Your task to perform on an android device: Open Maps and search for coffee Image 0: 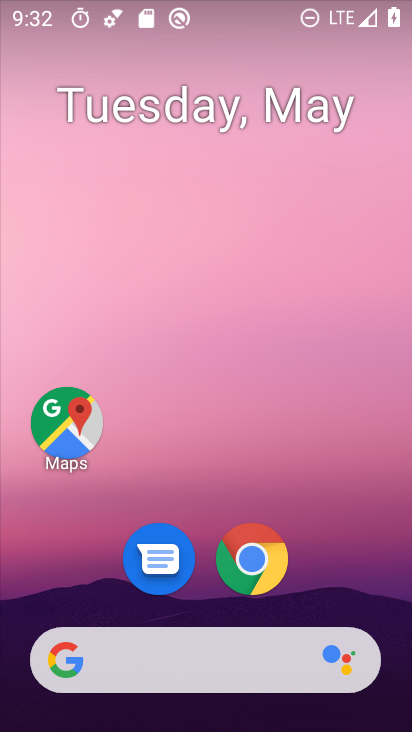
Step 0: drag from (389, 631) to (231, 56)
Your task to perform on an android device: Open Maps and search for coffee Image 1: 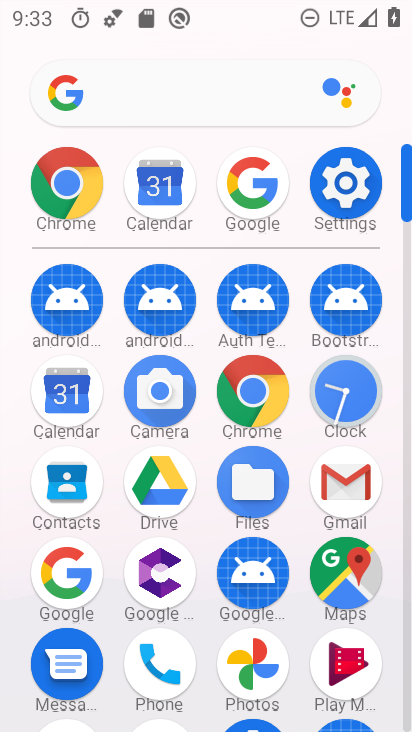
Step 1: click (347, 584)
Your task to perform on an android device: Open Maps and search for coffee Image 2: 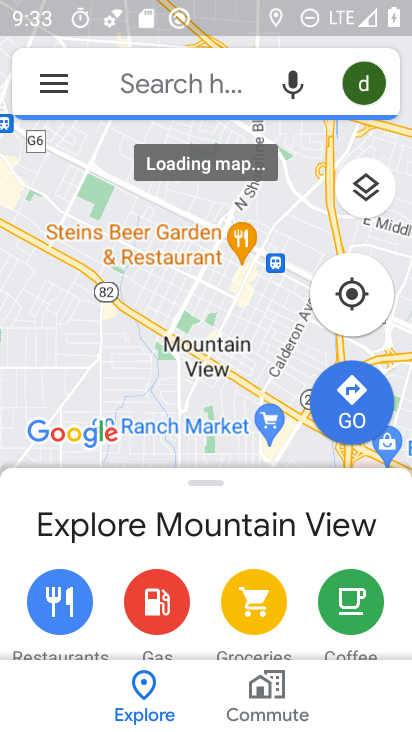
Step 2: click (166, 89)
Your task to perform on an android device: Open Maps and search for coffee Image 3: 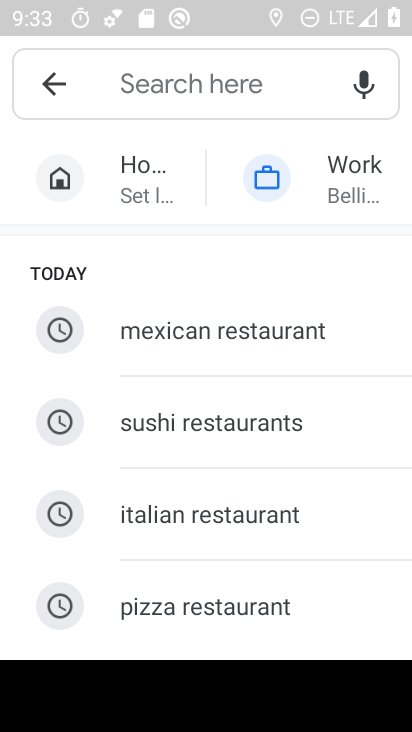
Step 3: drag from (187, 623) to (184, 216)
Your task to perform on an android device: Open Maps and search for coffee Image 4: 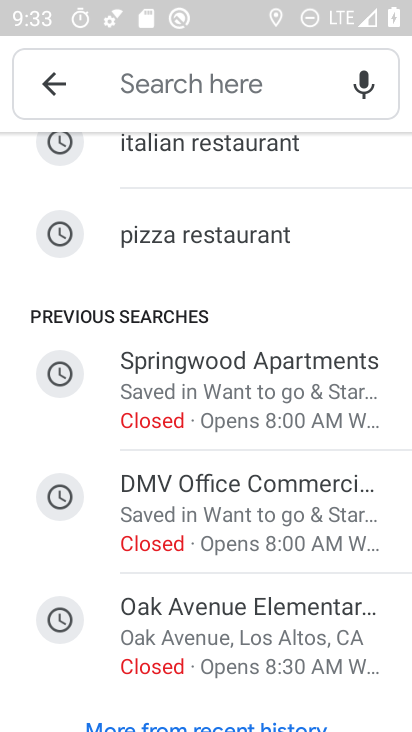
Step 4: drag from (198, 261) to (200, 717)
Your task to perform on an android device: Open Maps and search for coffee Image 5: 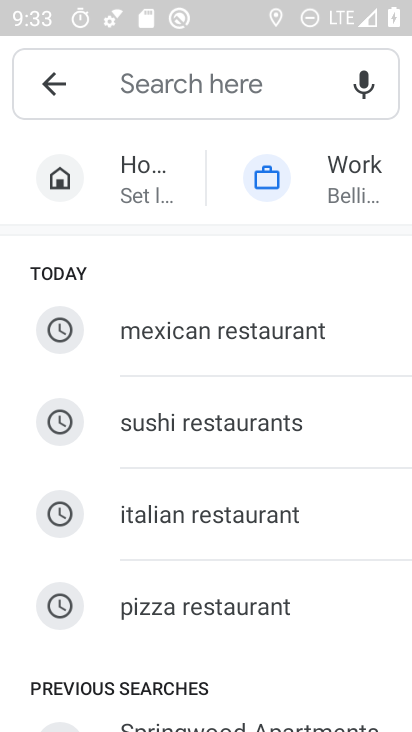
Step 5: click (153, 94)
Your task to perform on an android device: Open Maps and search for coffee Image 6: 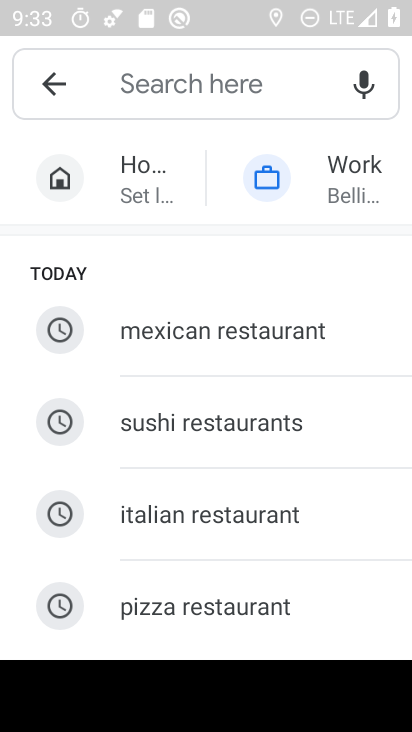
Step 6: type "coffee"
Your task to perform on an android device: Open Maps and search for coffee Image 7: 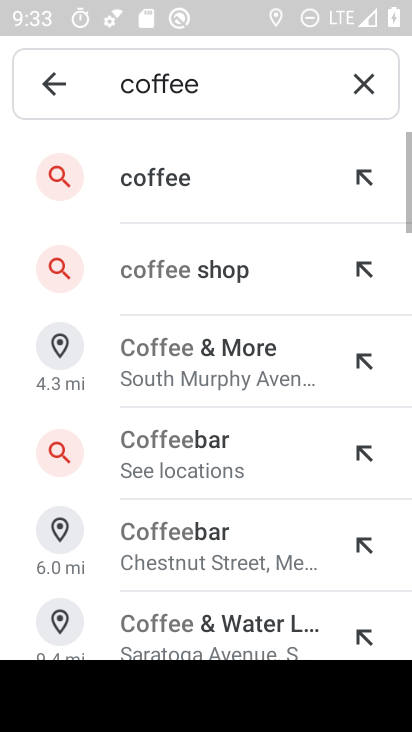
Step 7: click (200, 191)
Your task to perform on an android device: Open Maps and search for coffee Image 8: 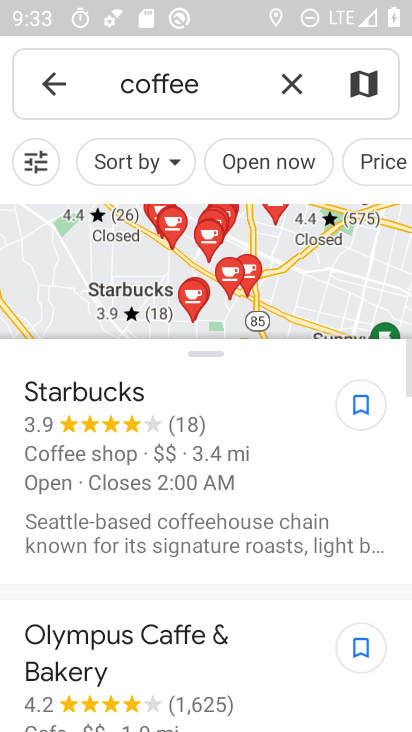
Step 8: task complete